Your task to perform on an android device: Go to Android settings Image 0: 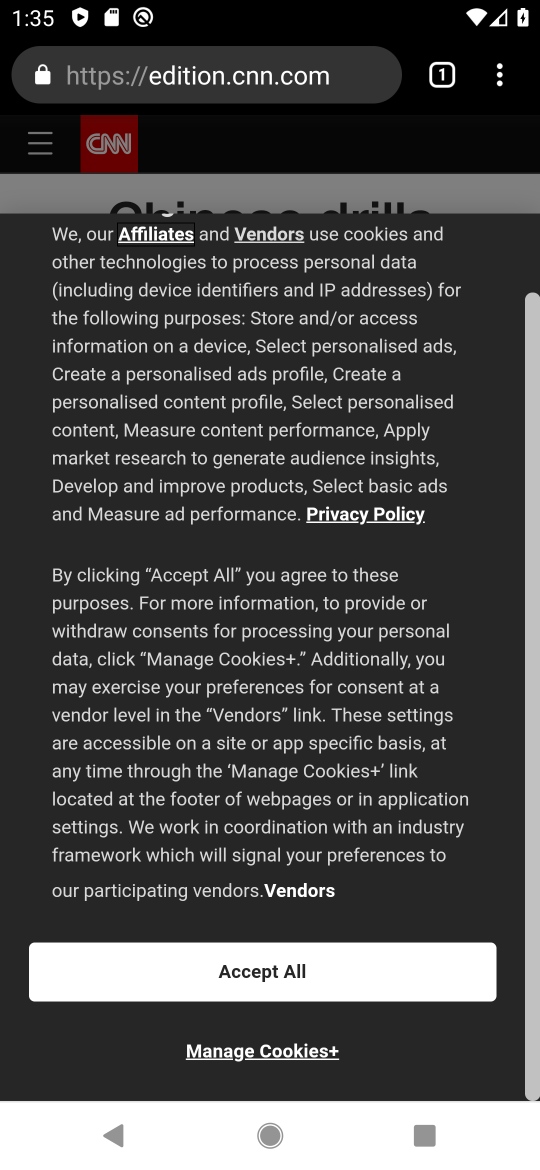
Step 0: drag from (359, 818) to (383, 294)
Your task to perform on an android device: Go to Android settings Image 1: 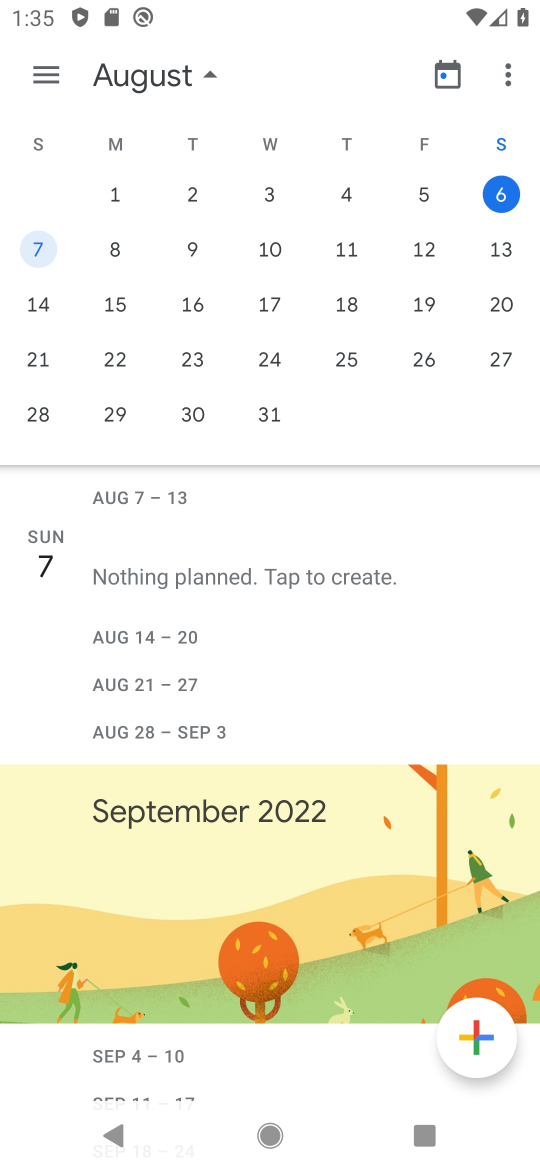
Step 1: press home button
Your task to perform on an android device: Go to Android settings Image 2: 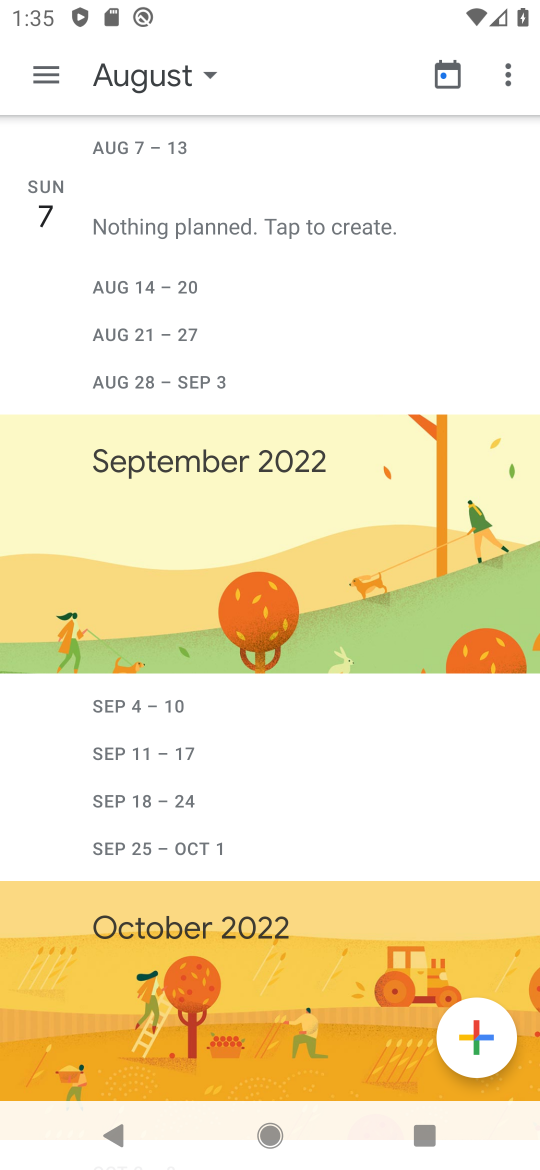
Step 2: click (259, 167)
Your task to perform on an android device: Go to Android settings Image 3: 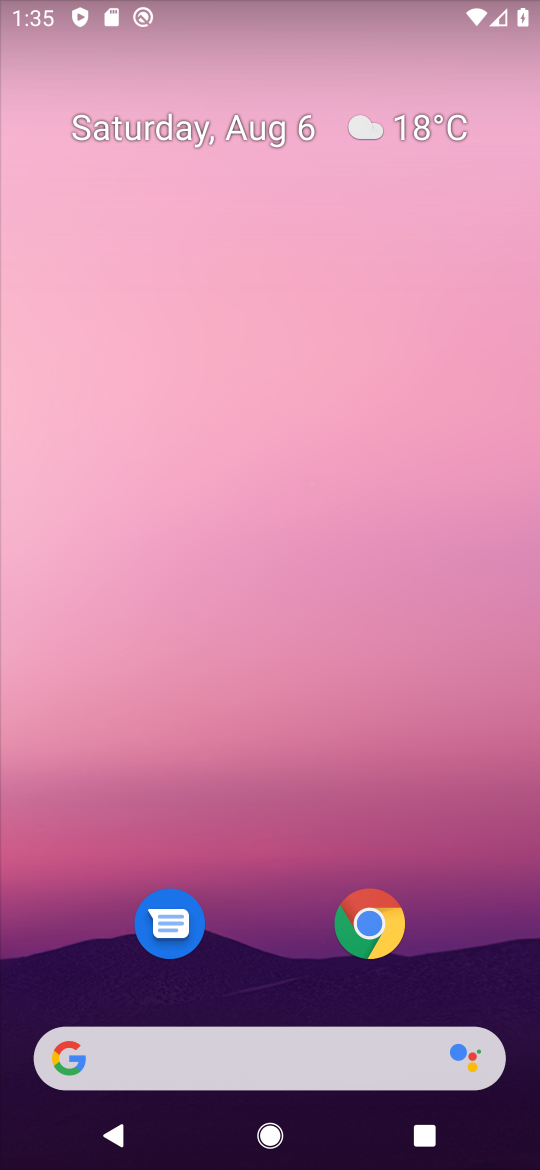
Step 3: drag from (287, 900) to (261, 0)
Your task to perform on an android device: Go to Android settings Image 4: 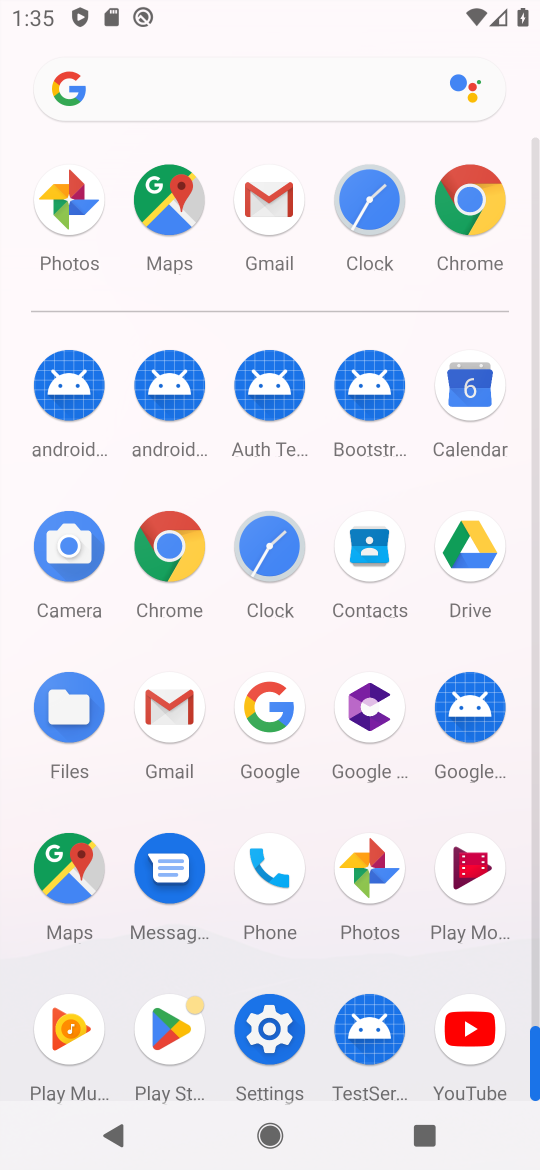
Step 4: click (270, 1023)
Your task to perform on an android device: Go to Android settings Image 5: 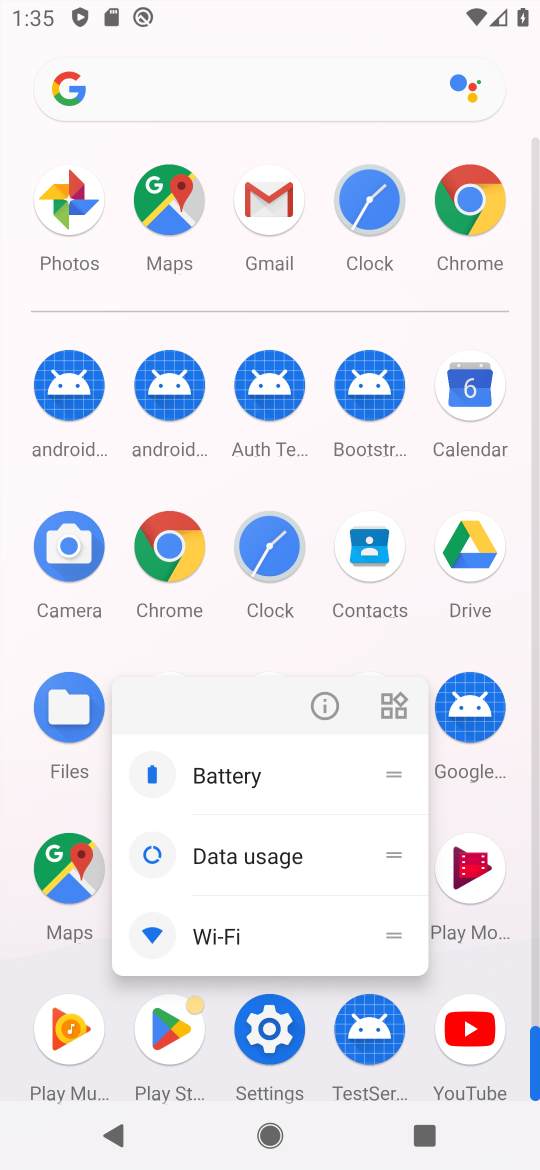
Step 5: click (324, 709)
Your task to perform on an android device: Go to Android settings Image 6: 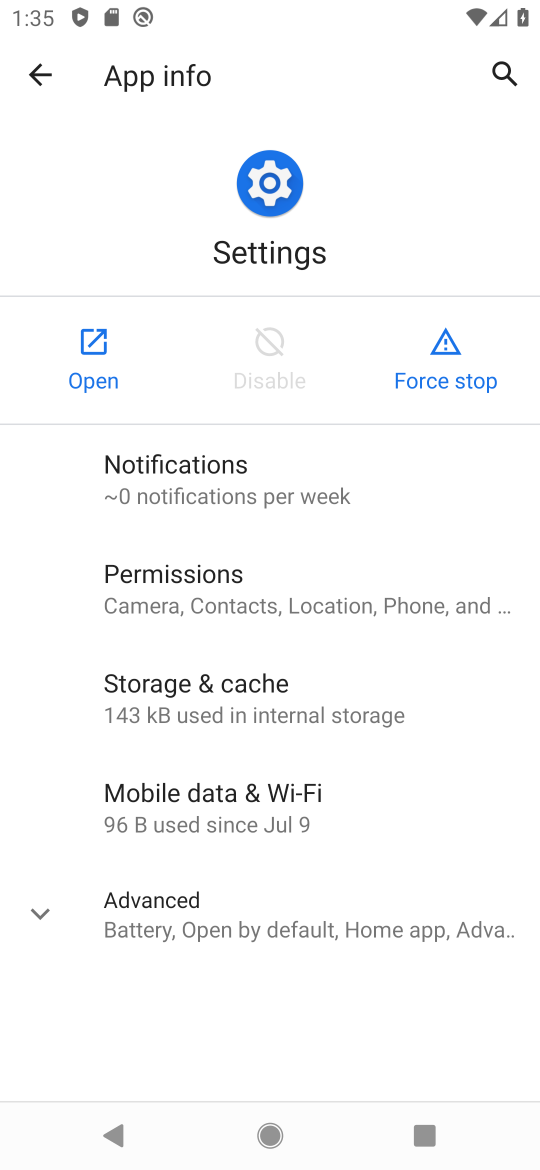
Step 6: click (82, 352)
Your task to perform on an android device: Go to Android settings Image 7: 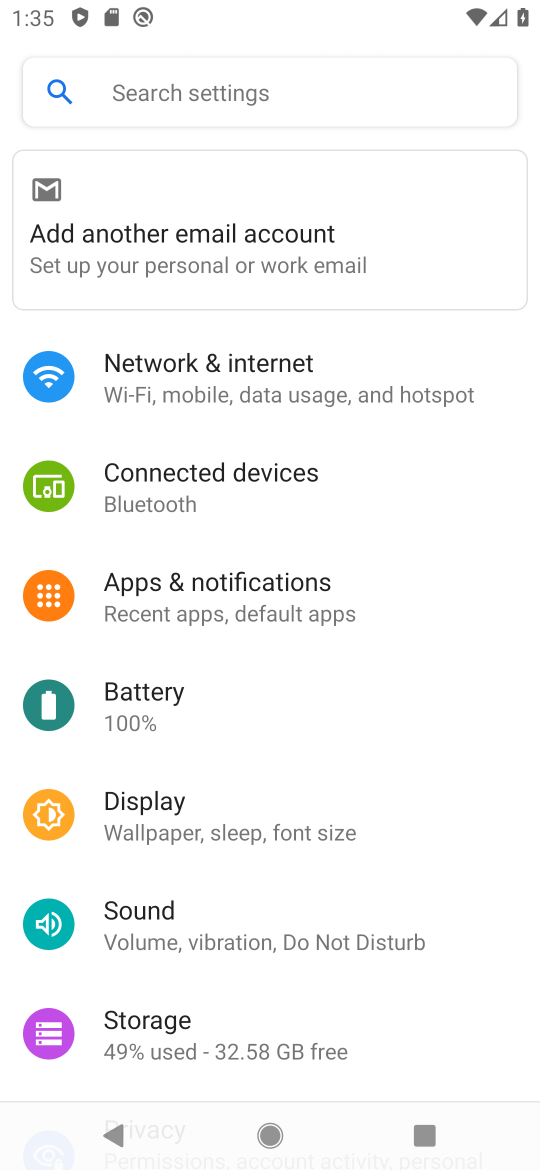
Step 7: drag from (224, 853) to (292, 290)
Your task to perform on an android device: Go to Android settings Image 8: 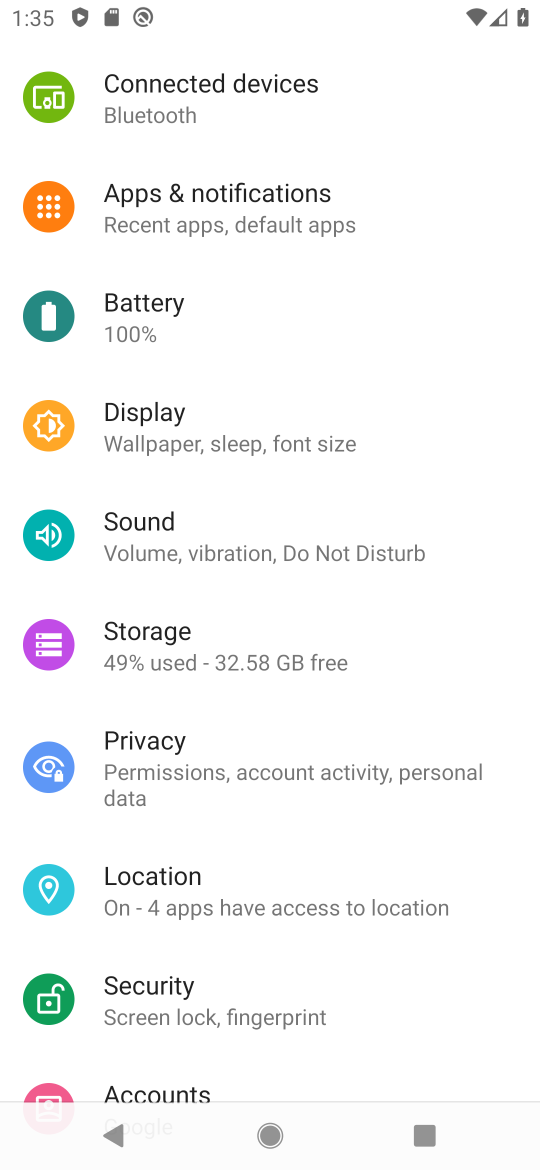
Step 8: drag from (356, 1076) to (369, 338)
Your task to perform on an android device: Go to Android settings Image 9: 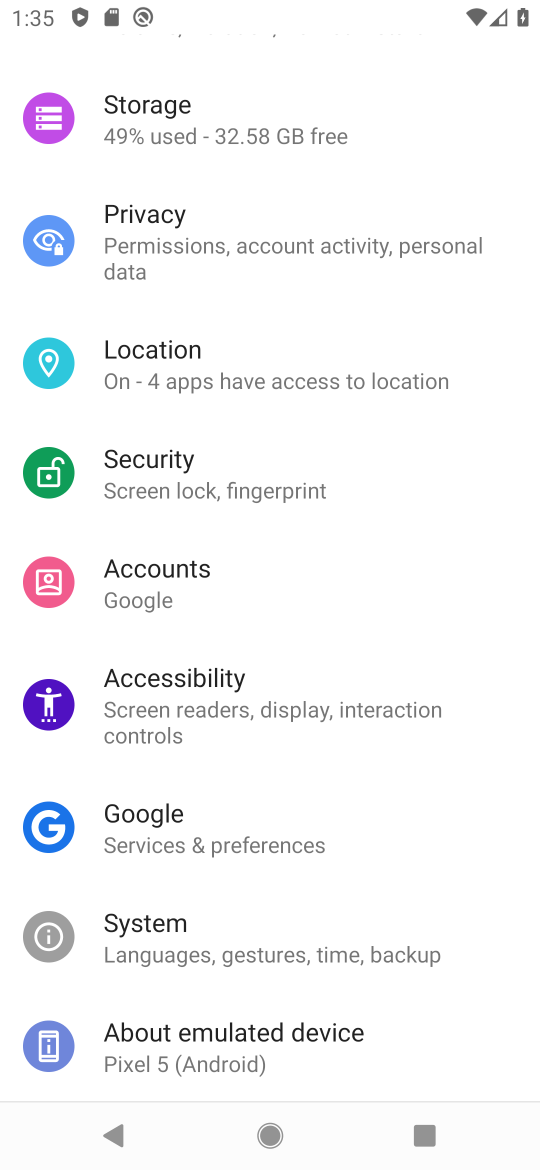
Step 9: click (241, 1050)
Your task to perform on an android device: Go to Android settings Image 10: 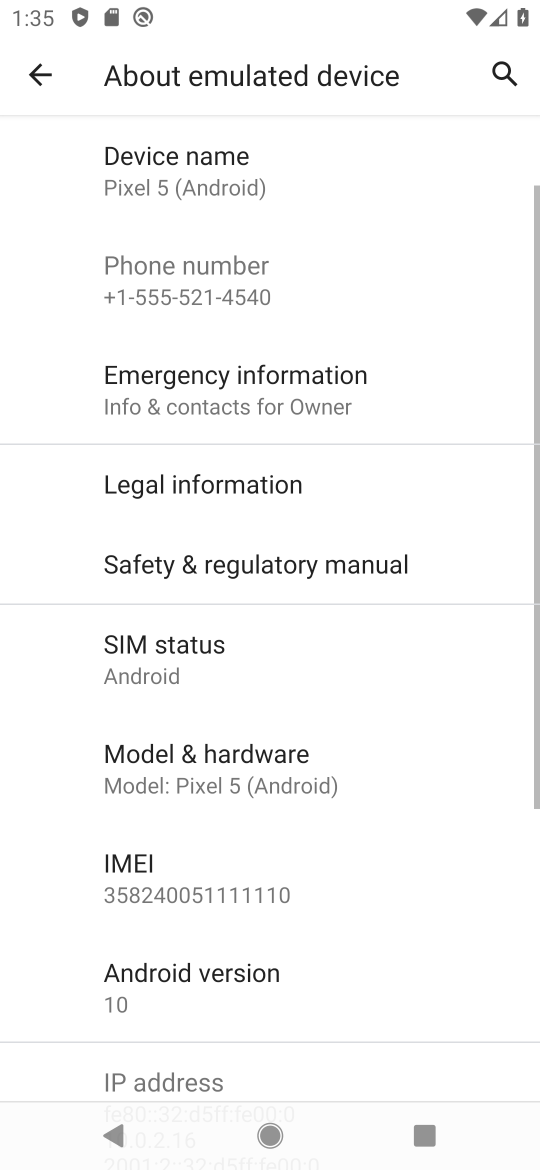
Step 10: click (194, 959)
Your task to perform on an android device: Go to Android settings Image 11: 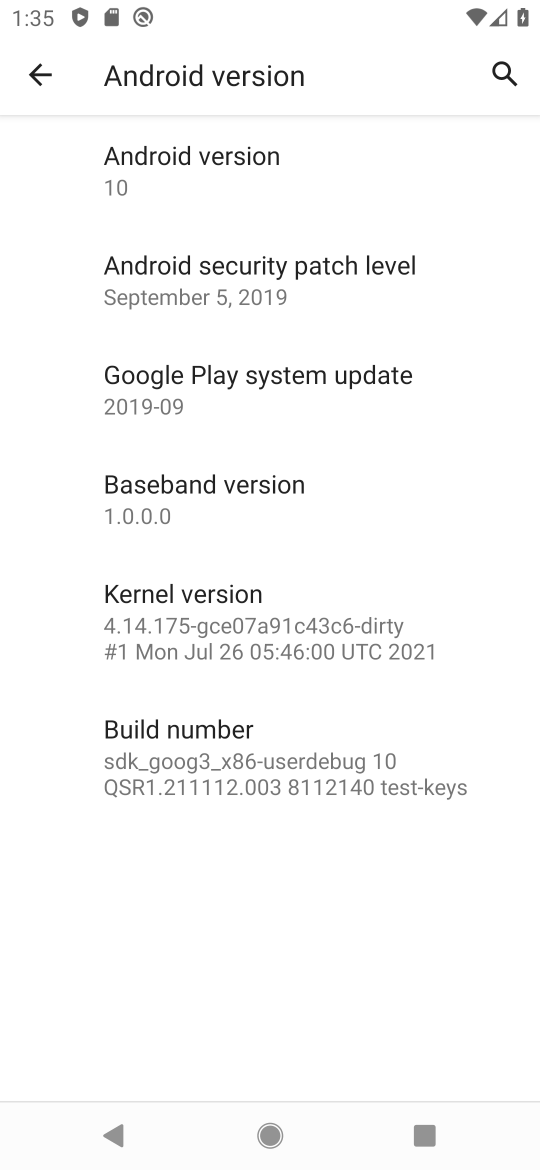
Step 11: click (241, 162)
Your task to perform on an android device: Go to Android settings Image 12: 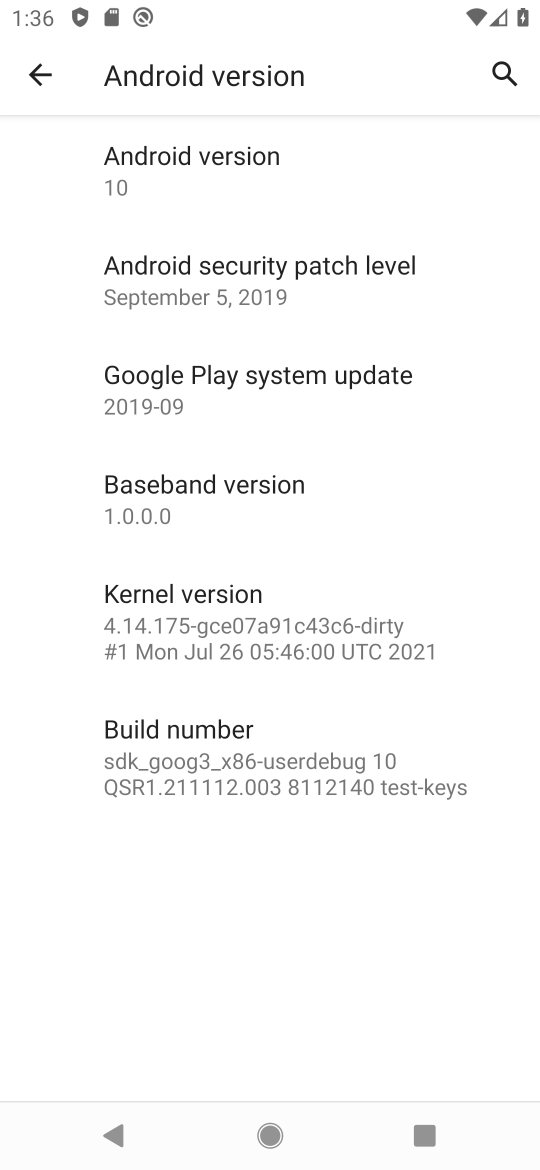
Step 12: task complete